Your task to perform on an android device: open app "Google Calendar" (install if not already installed) Image 0: 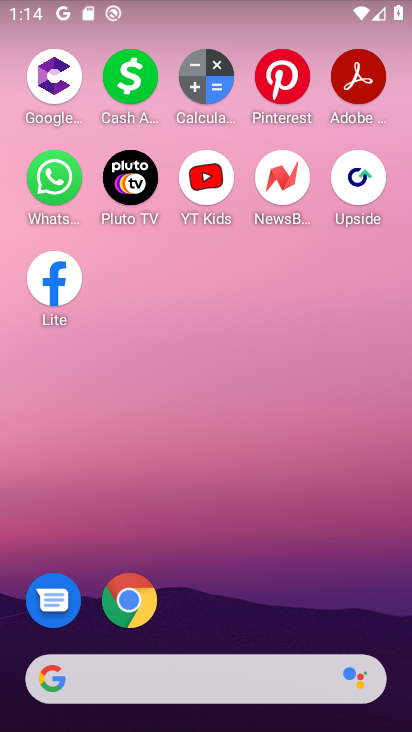
Step 0: drag from (221, 615) to (168, 41)
Your task to perform on an android device: open app "Google Calendar" (install if not already installed) Image 1: 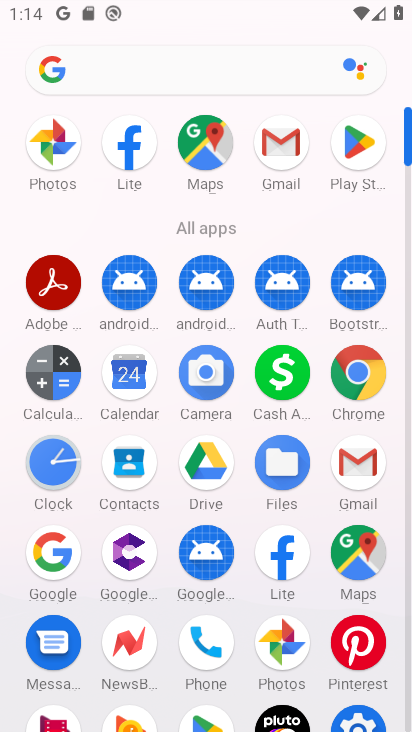
Step 1: click (358, 155)
Your task to perform on an android device: open app "Google Calendar" (install if not already installed) Image 2: 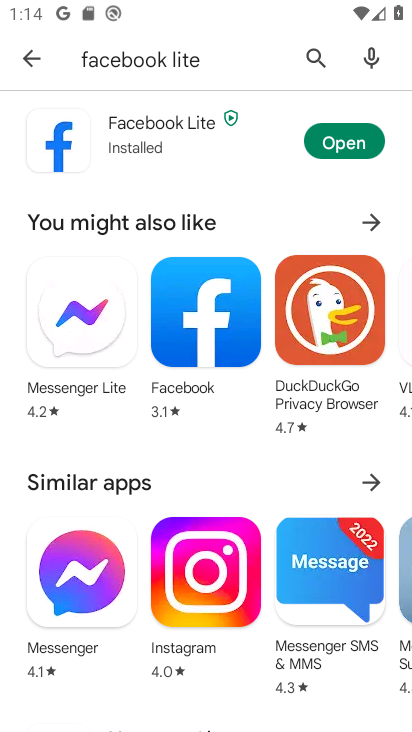
Step 2: click (313, 59)
Your task to perform on an android device: open app "Google Calendar" (install if not already installed) Image 3: 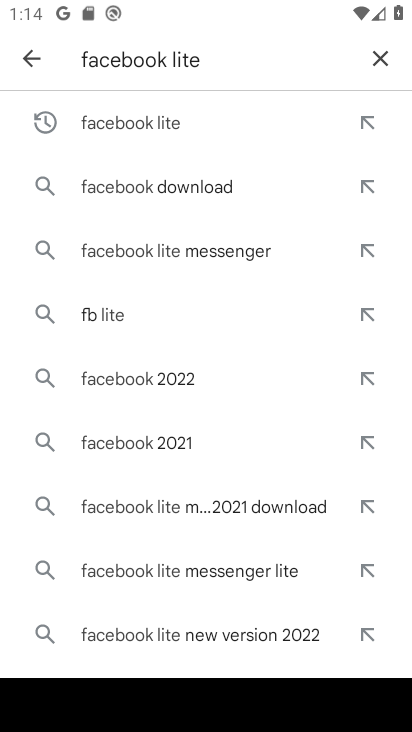
Step 3: click (377, 52)
Your task to perform on an android device: open app "Google Calendar" (install if not already installed) Image 4: 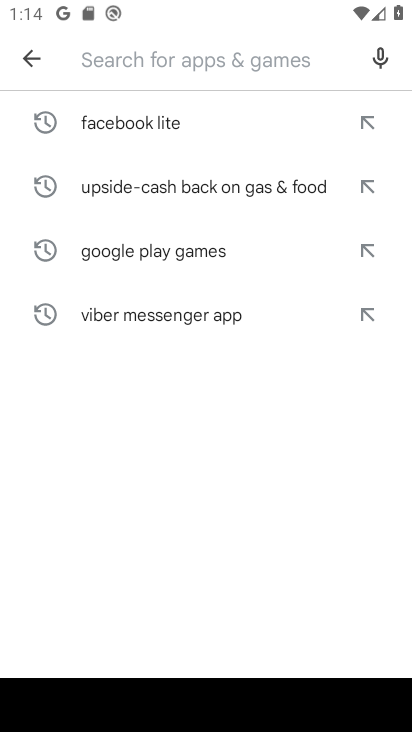
Step 4: type "Google Calendar"
Your task to perform on an android device: open app "Google Calendar" (install if not already installed) Image 5: 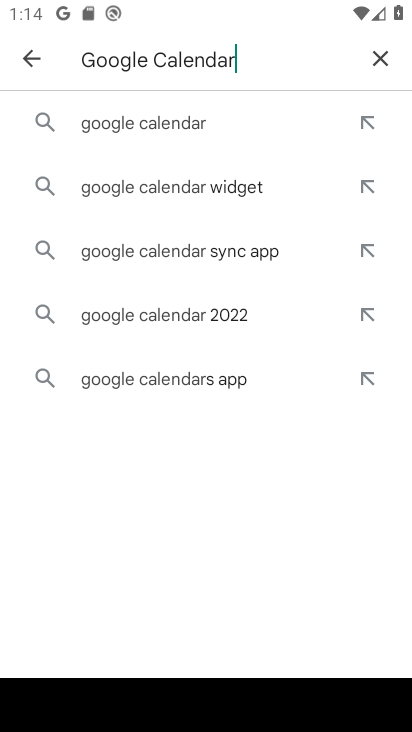
Step 5: click (192, 120)
Your task to perform on an android device: open app "Google Calendar" (install if not already installed) Image 6: 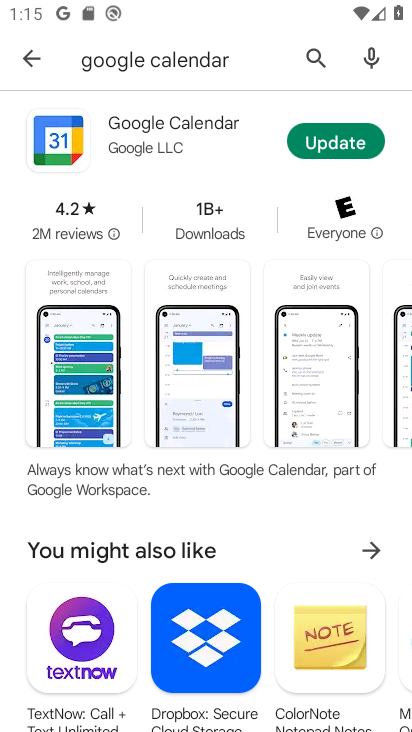
Step 6: task complete